Your task to perform on an android device: Open Android settings Image 0: 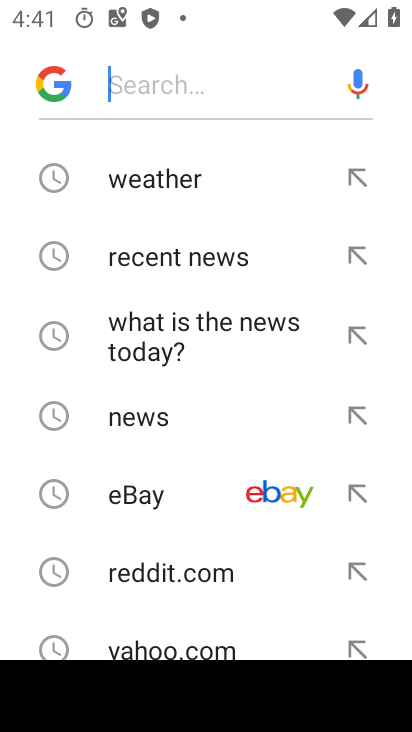
Step 0: press home button
Your task to perform on an android device: Open Android settings Image 1: 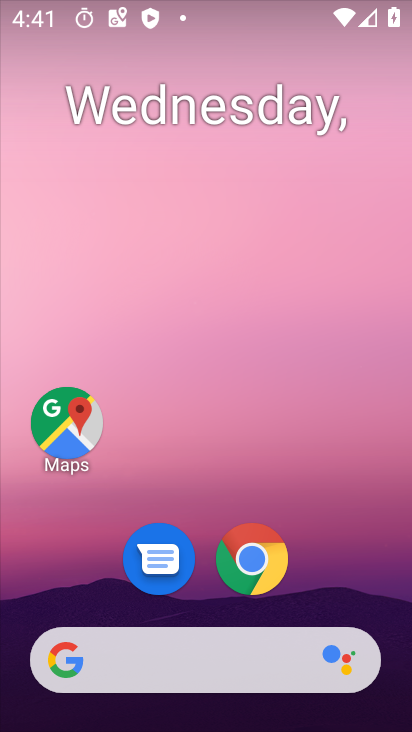
Step 1: drag from (314, 584) to (222, 32)
Your task to perform on an android device: Open Android settings Image 2: 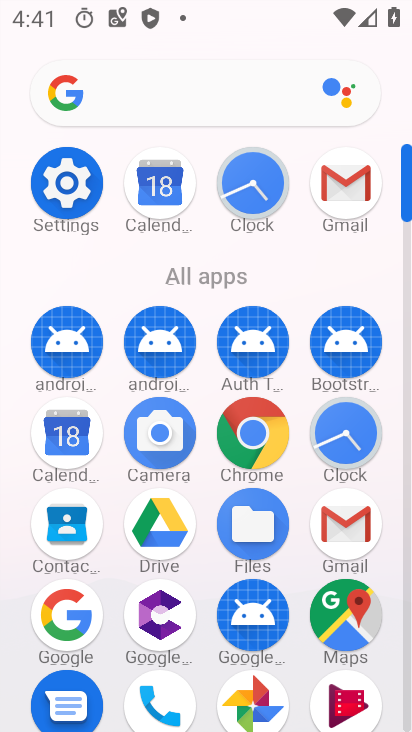
Step 2: click (69, 195)
Your task to perform on an android device: Open Android settings Image 3: 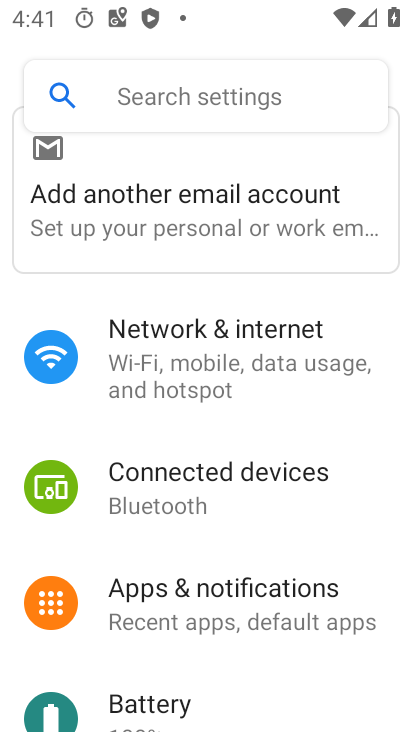
Step 3: drag from (280, 679) to (214, 114)
Your task to perform on an android device: Open Android settings Image 4: 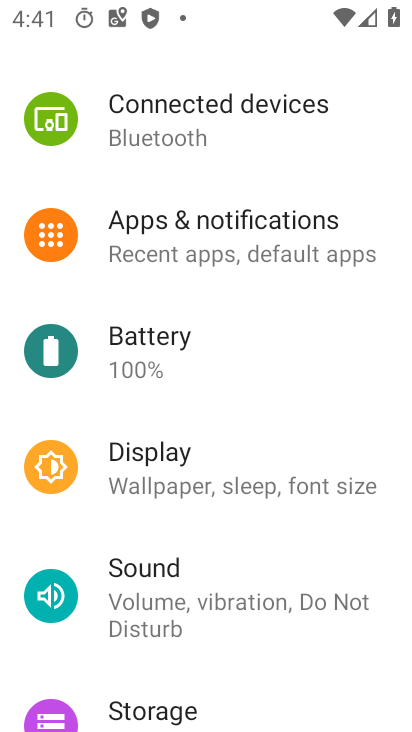
Step 4: drag from (239, 614) to (225, 132)
Your task to perform on an android device: Open Android settings Image 5: 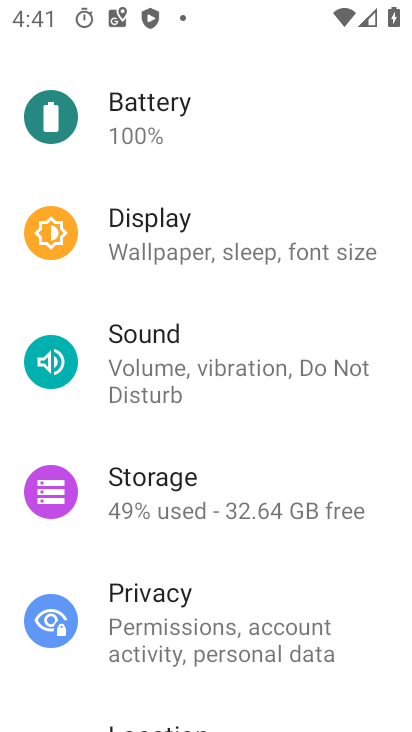
Step 5: drag from (228, 599) to (173, 40)
Your task to perform on an android device: Open Android settings Image 6: 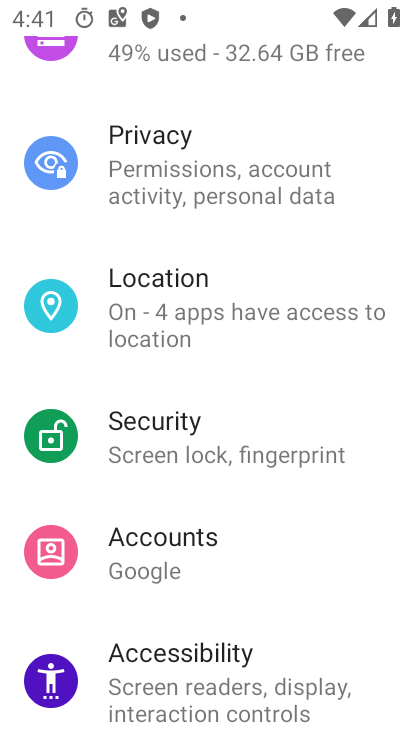
Step 6: drag from (238, 496) to (215, 107)
Your task to perform on an android device: Open Android settings Image 7: 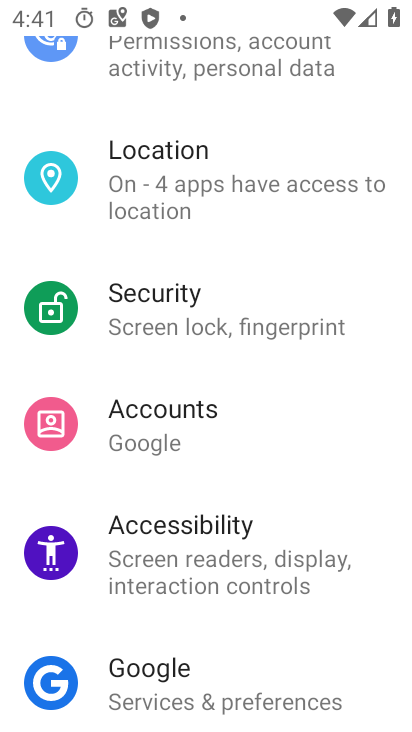
Step 7: drag from (222, 646) to (195, 100)
Your task to perform on an android device: Open Android settings Image 8: 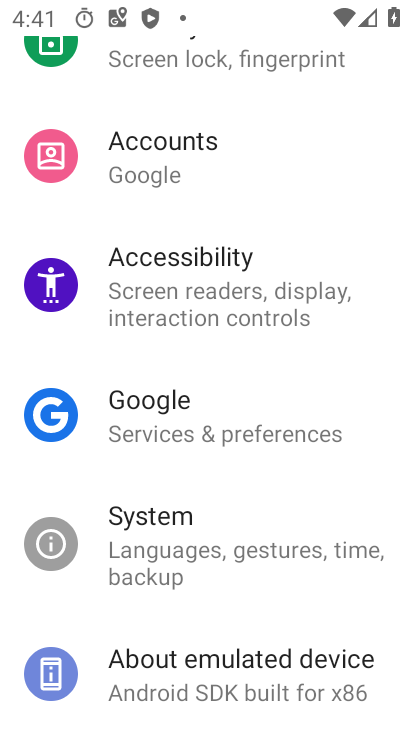
Step 8: click (226, 660)
Your task to perform on an android device: Open Android settings Image 9: 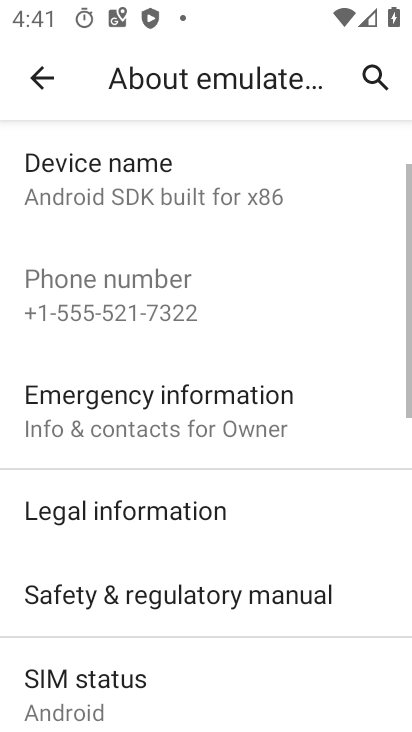
Step 9: drag from (232, 668) to (224, 155)
Your task to perform on an android device: Open Android settings Image 10: 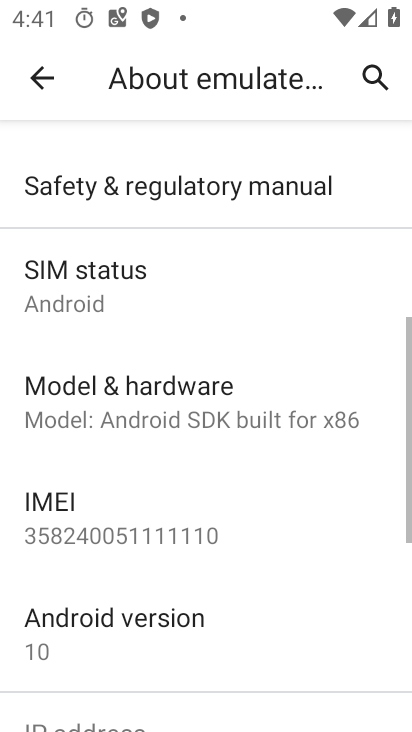
Step 10: click (147, 640)
Your task to perform on an android device: Open Android settings Image 11: 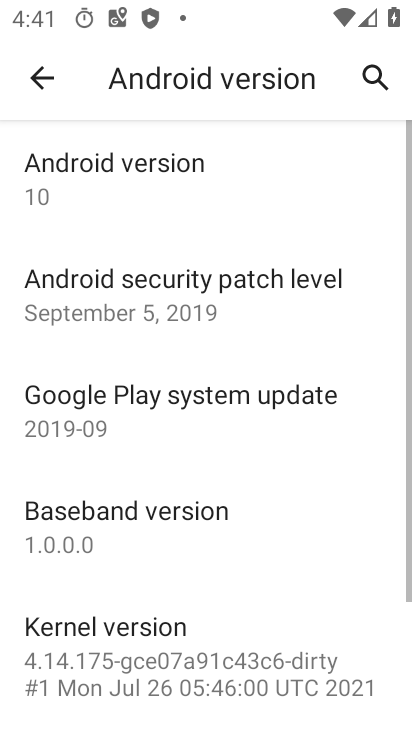
Step 11: task complete